Your task to perform on an android device: Open privacy settings Image 0: 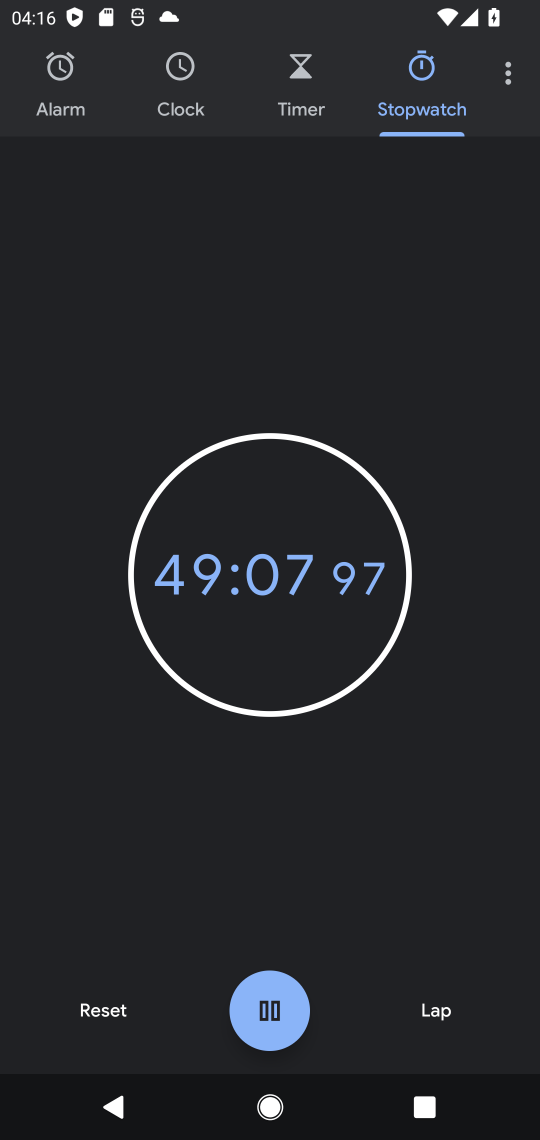
Step 0: press home button
Your task to perform on an android device: Open privacy settings Image 1: 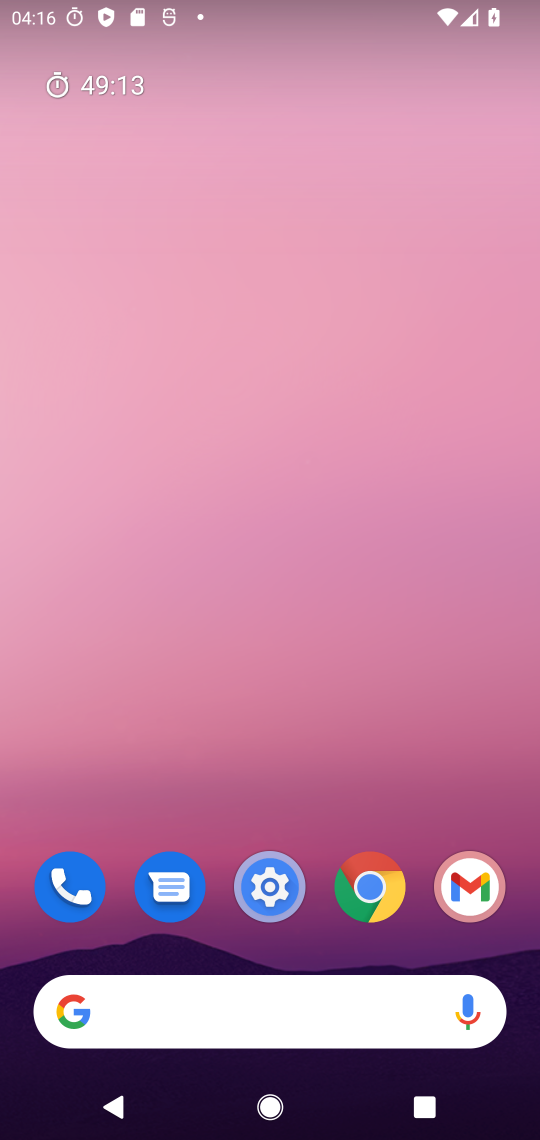
Step 1: drag from (399, 755) to (356, 248)
Your task to perform on an android device: Open privacy settings Image 2: 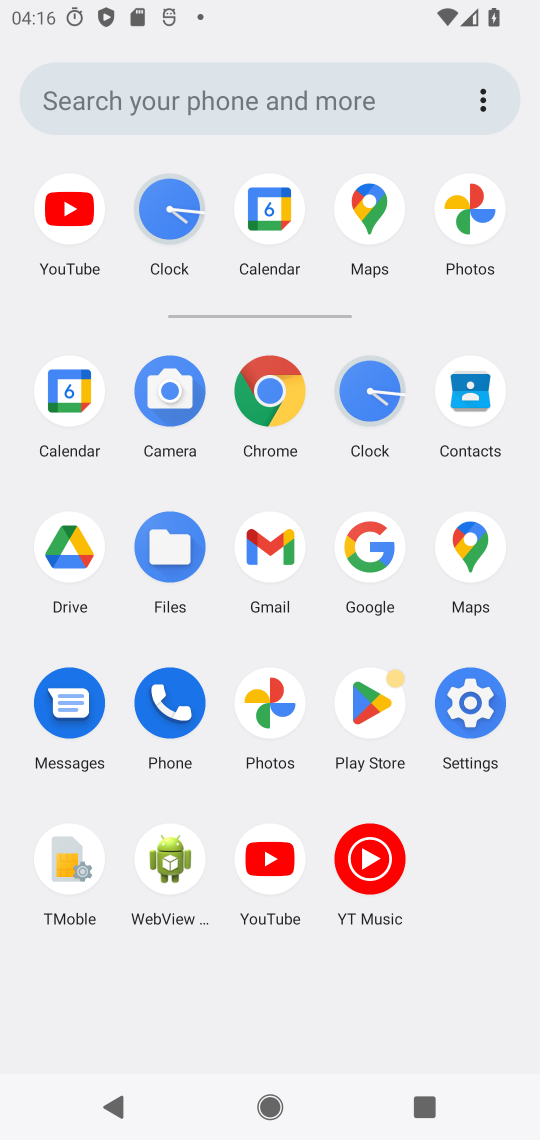
Step 2: click (473, 689)
Your task to perform on an android device: Open privacy settings Image 3: 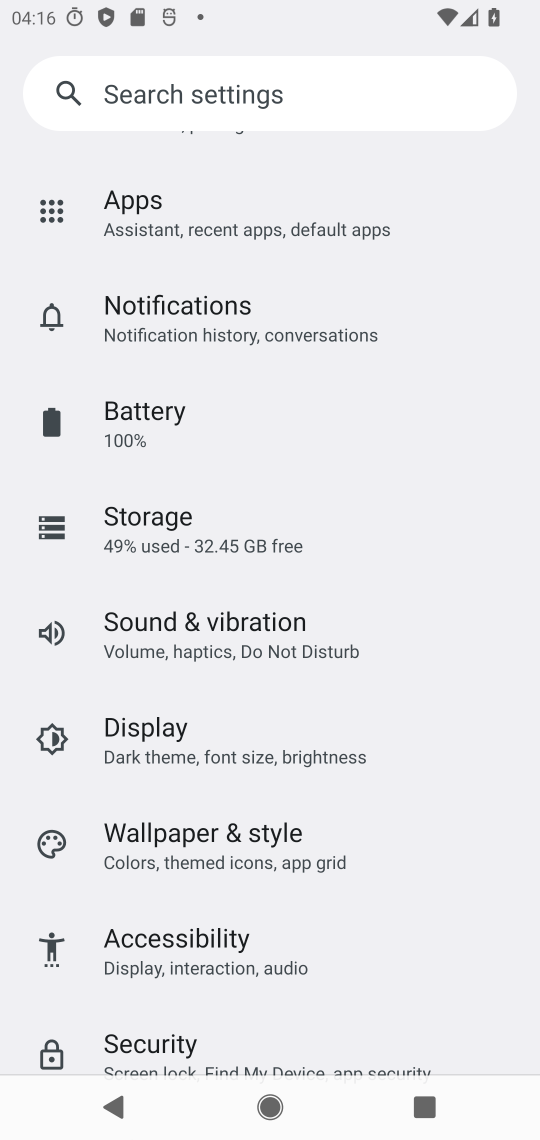
Step 3: drag from (438, 801) to (450, 663)
Your task to perform on an android device: Open privacy settings Image 4: 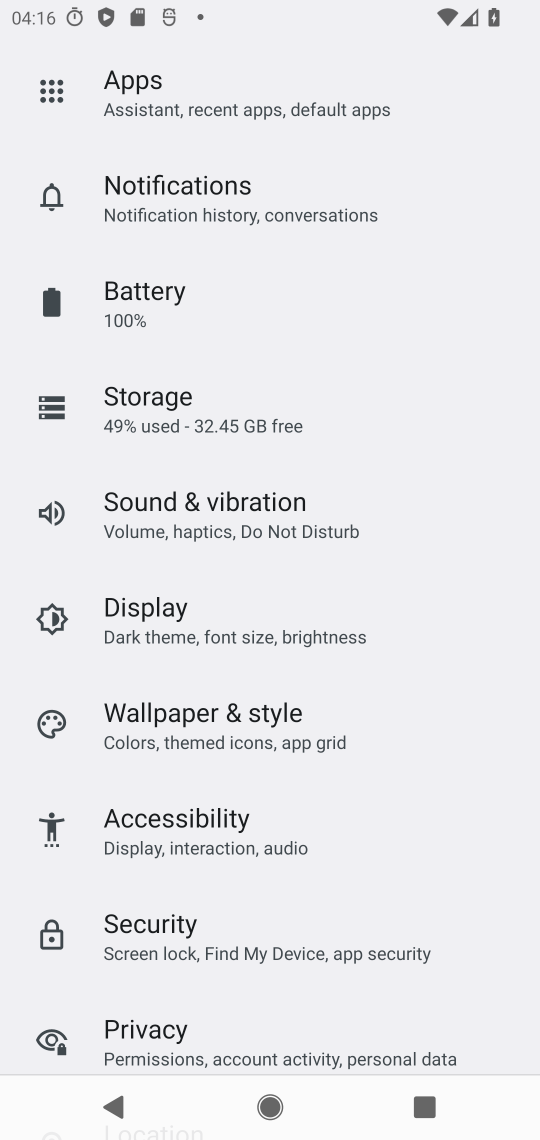
Step 4: drag from (422, 845) to (439, 610)
Your task to perform on an android device: Open privacy settings Image 5: 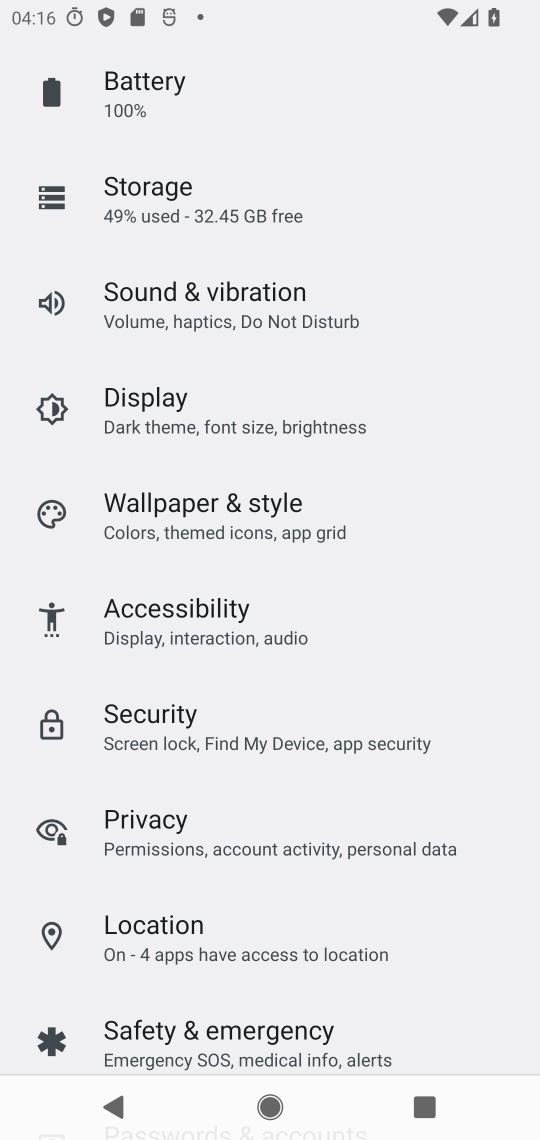
Step 5: drag from (434, 913) to (467, 703)
Your task to perform on an android device: Open privacy settings Image 6: 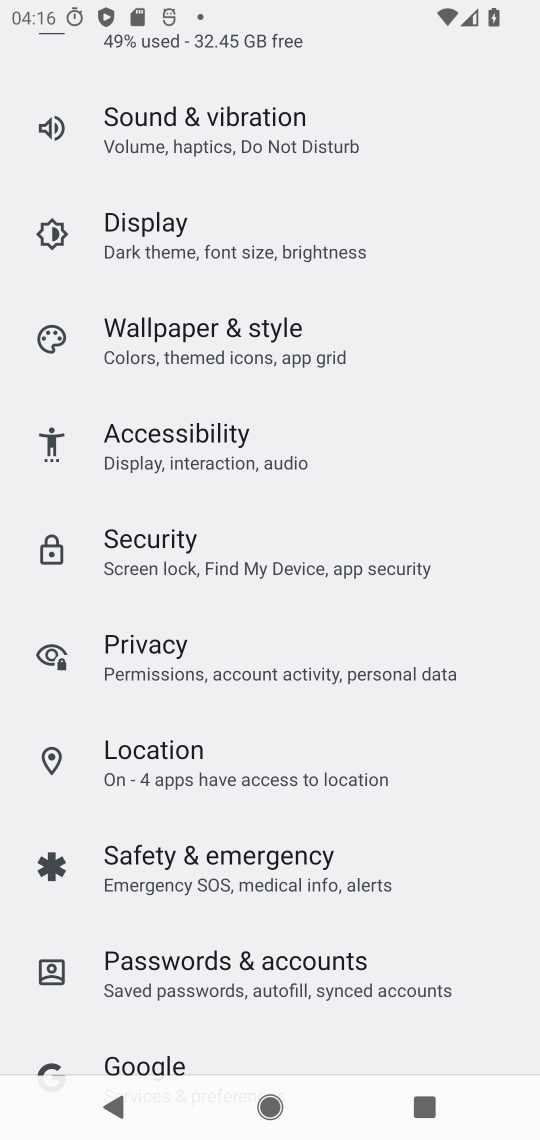
Step 6: drag from (447, 880) to (466, 708)
Your task to perform on an android device: Open privacy settings Image 7: 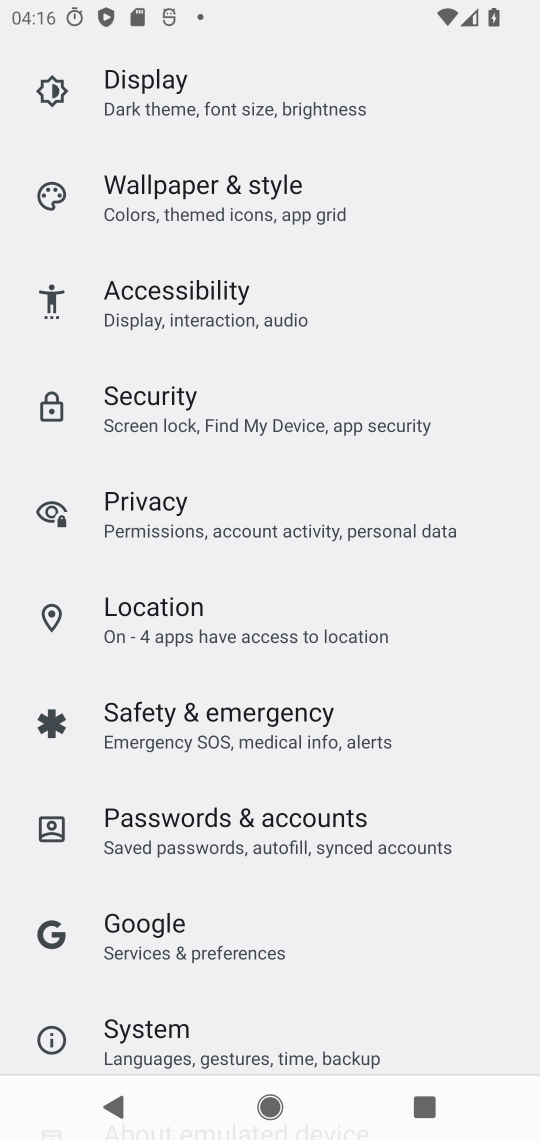
Step 7: drag from (440, 917) to (466, 711)
Your task to perform on an android device: Open privacy settings Image 8: 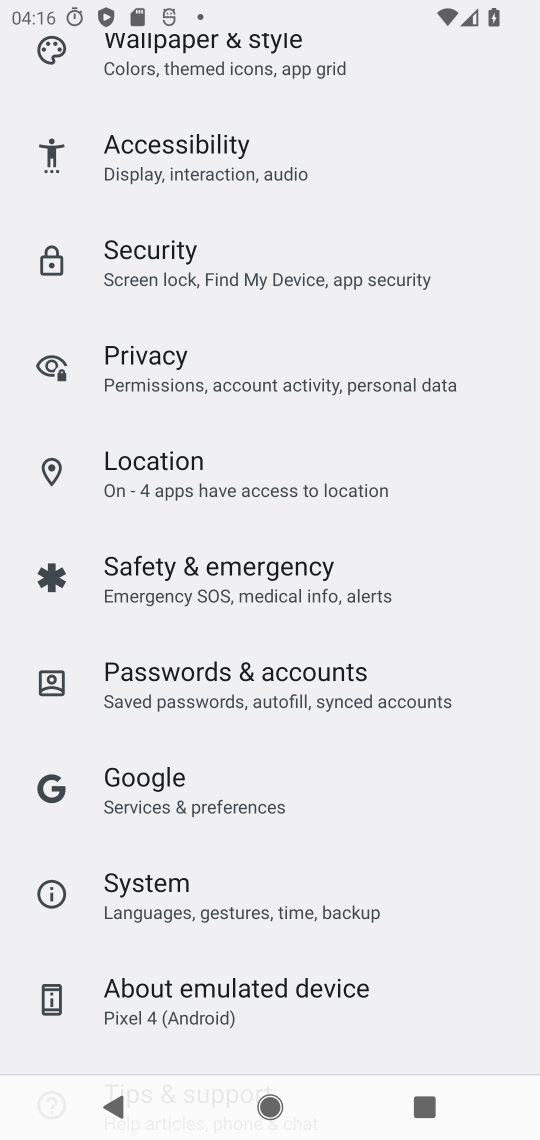
Step 8: drag from (457, 509) to (478, 654)
Your task to perform on an android device: Open privacy settings Image 9: 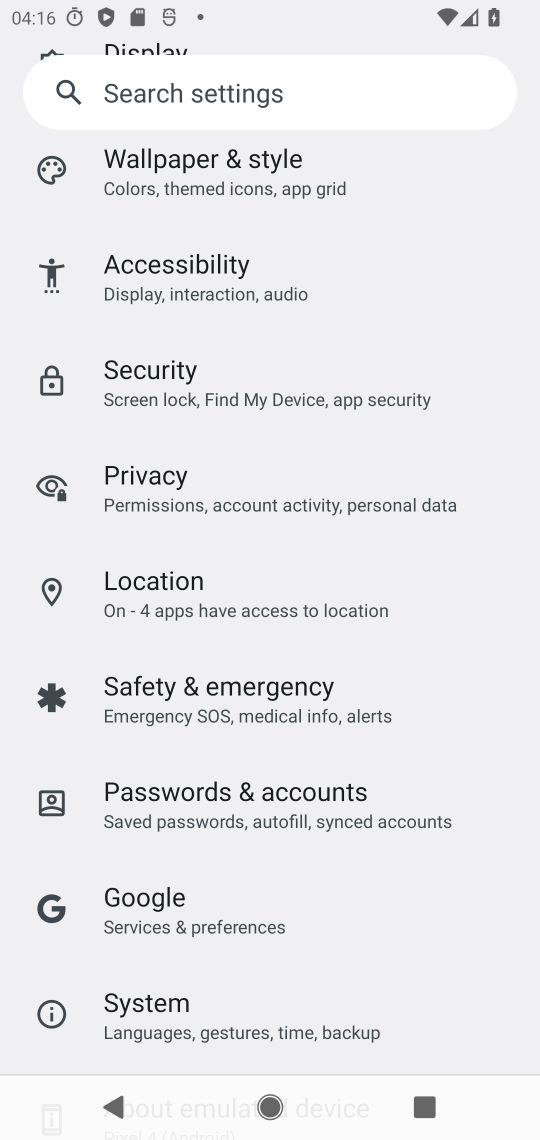
Step 9: drag from (502, 457) to (477, 643)
Your task to perform on an android device: Open privacy settings Image 10: 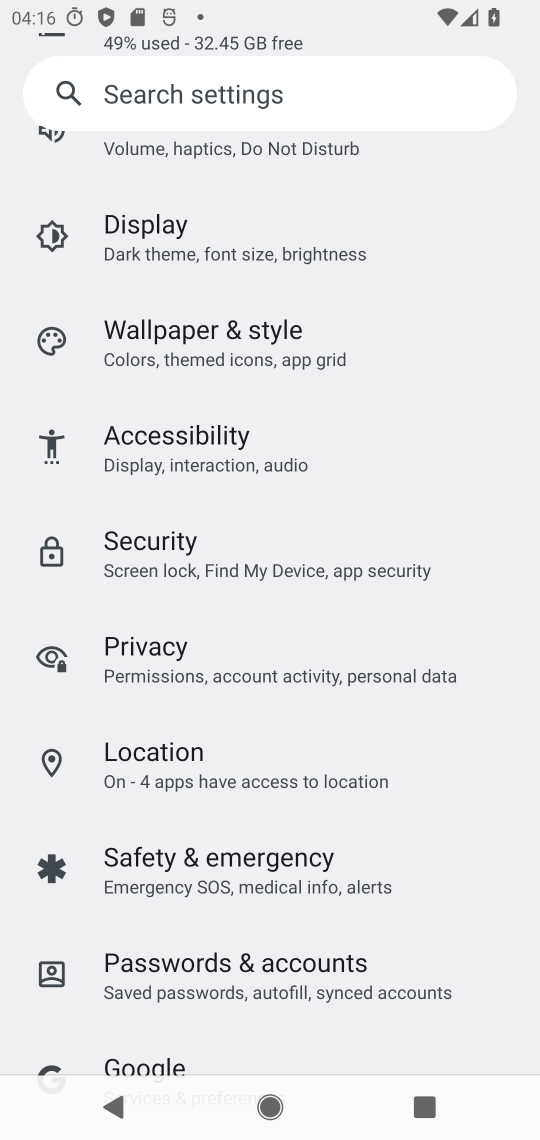
Step 10: drag from (482, 436) to (490, 624)
Your task to perform on an android device: Open privacy settings Image 11: 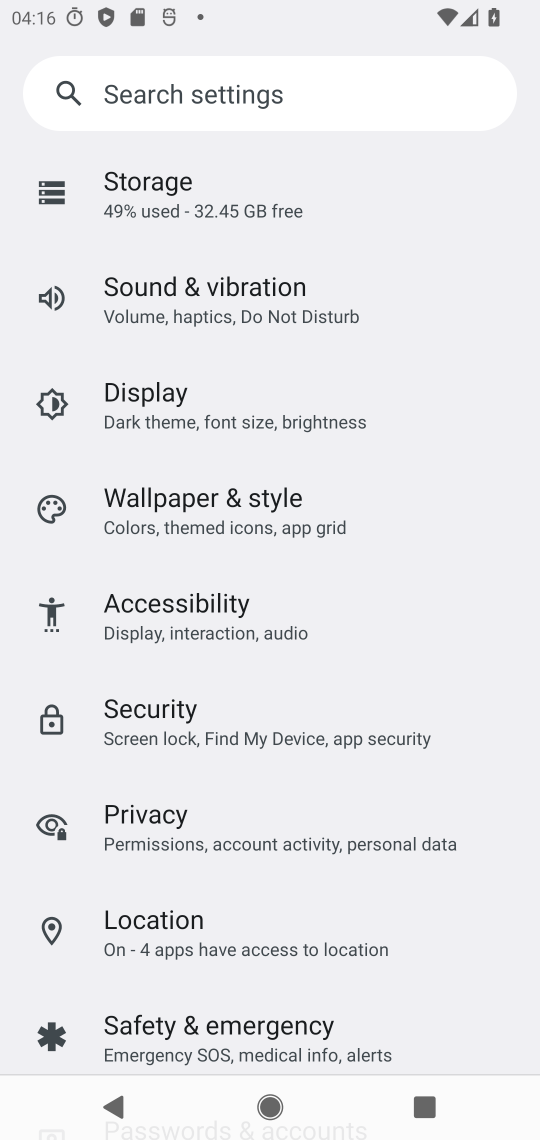
Step 11: click (411, 819)
Your task to perform on an android device: Open privacy settings Image 12: 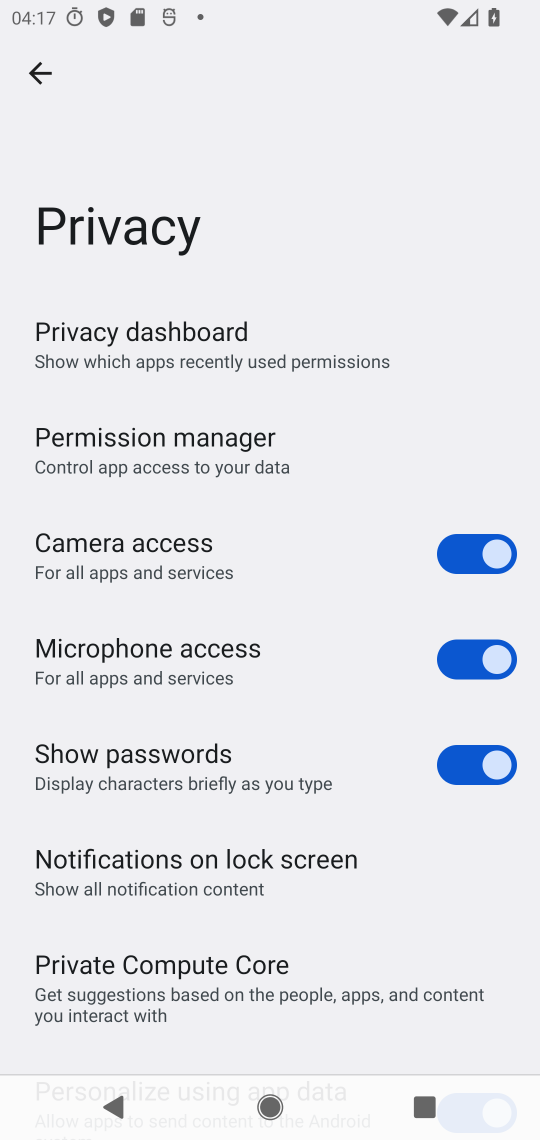
Step 12: task complete